Your task to perform on an android device: Open calendar and show me the third week of next month Image 0: 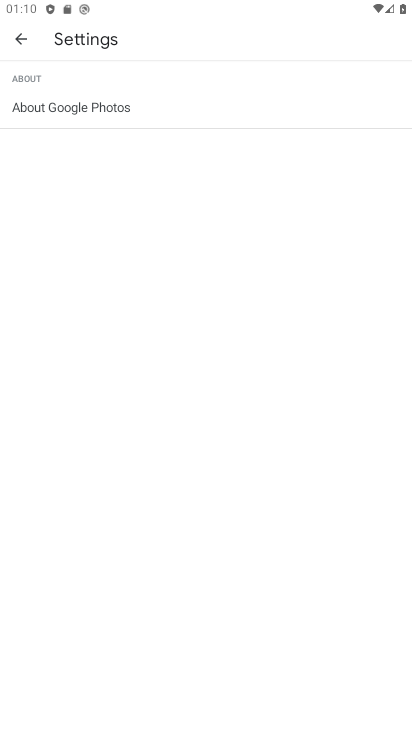
Step 0: press home button
Your task to perform on an android device: Open calendar and show me the third week of next month Image 1: 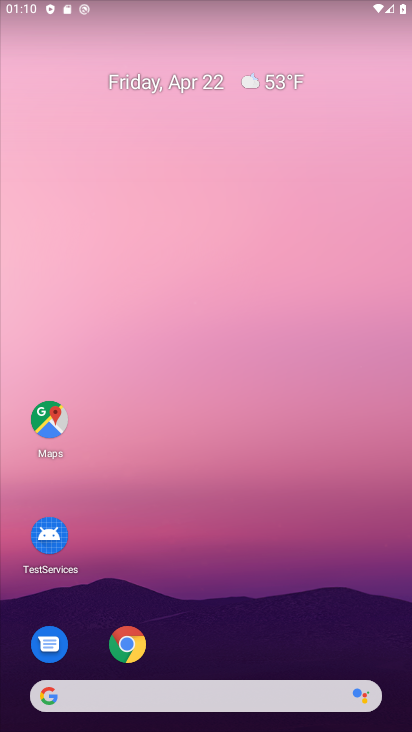
Step 1: drag from (250, 507) to (238, 116)
Your task to perform on an android device: Open calendar and show me the third week of next month Image 2: 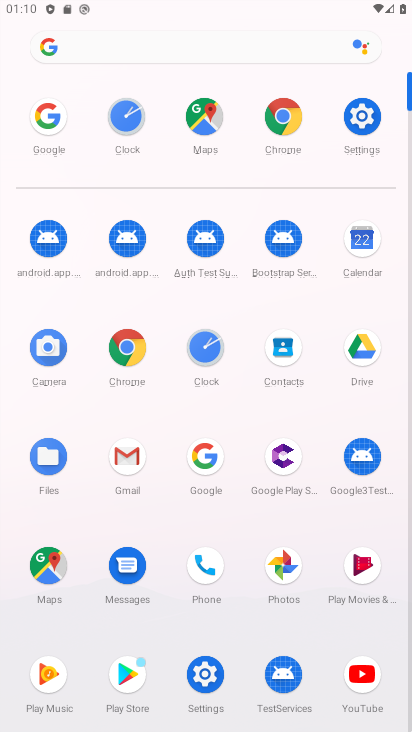
Step 2: click (351, 246)
Your task to perform on an android device: Open calendar and show me the third week of next month Image 3: 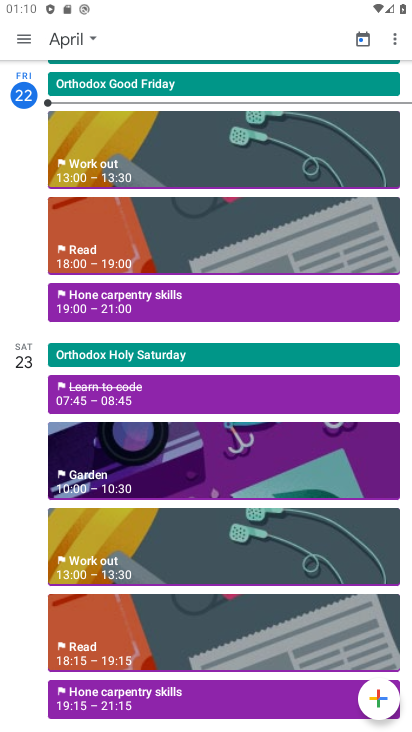
Step 3: click (63, 38)
Your task to perform on an android device: Open calendar and show me the third week of next month Image 4: 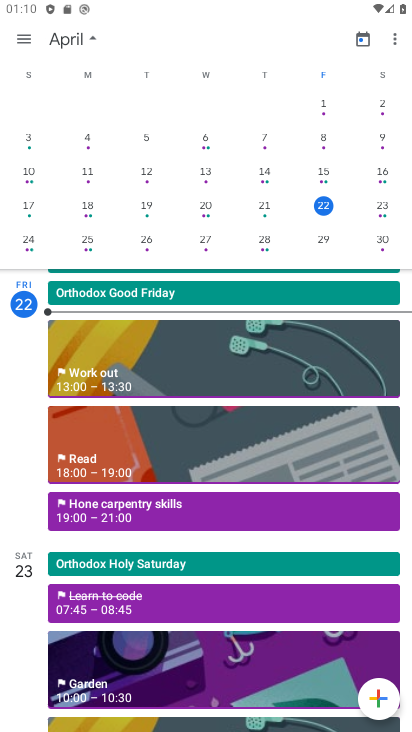
Step 4: drag from (356, 182) to (4, 196)
Your task to perform on an android device: Open calendar and show me the third week of next month Image 5: 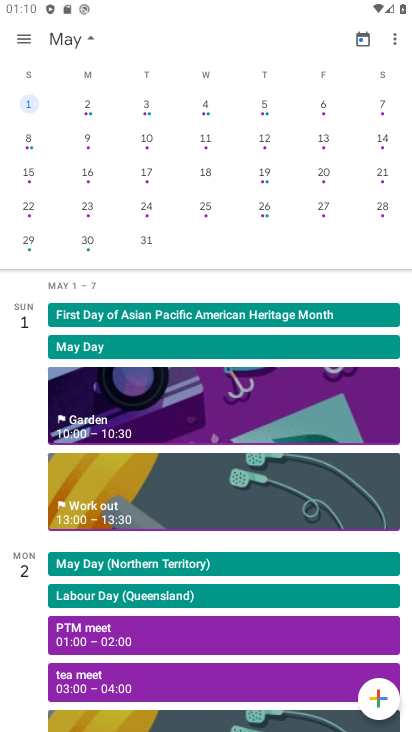
Step 5: click (92, 170)
Your task to perform on an android device: Open calendar and show me the third week of next month Image 6: 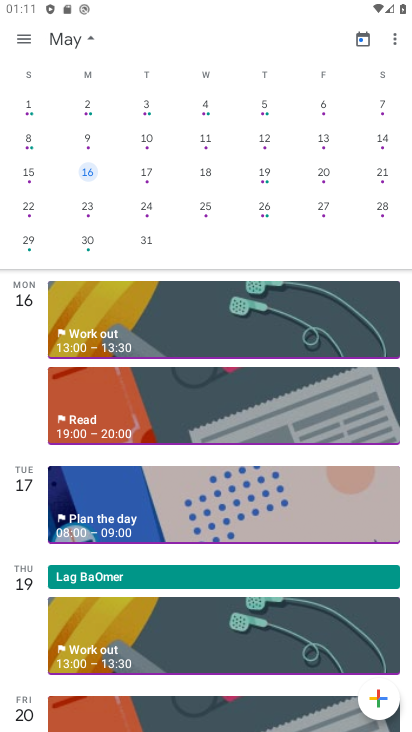
Step 6: task complete